Your task to perform on an android device: clear history in the chrome app Image 0: 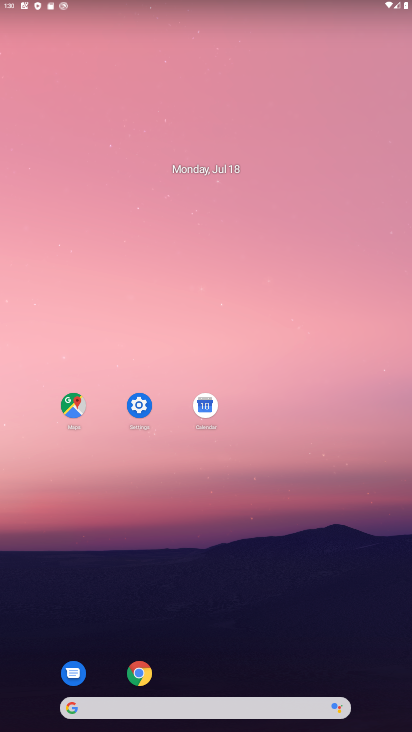
Step 0: click (136, 673)
Your task to perform on an android device: clear history in the chrome app Image 1: 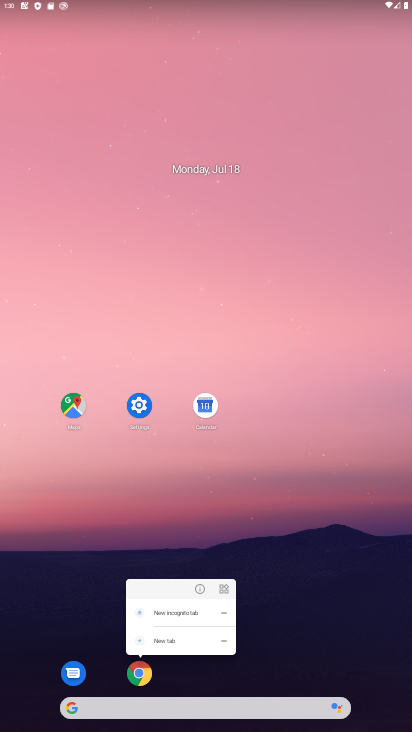
Step 1: click (136, 673)
Your task to perform on an android device: clear history in the chrome app Image 2: 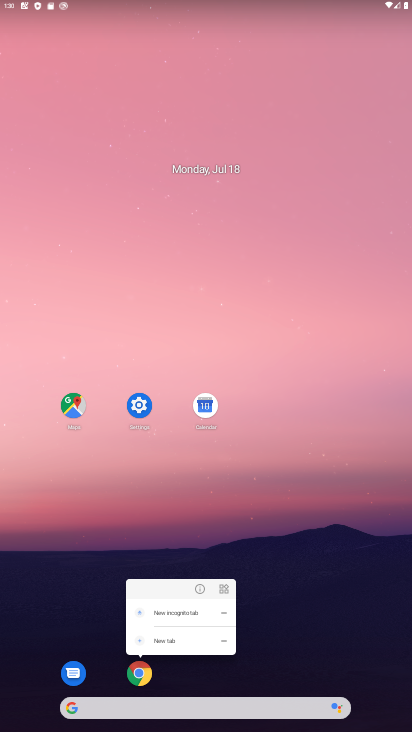
Step 2: click (132, 671)
Your task to perform on an android device: clear history in the chrome app Image 3: 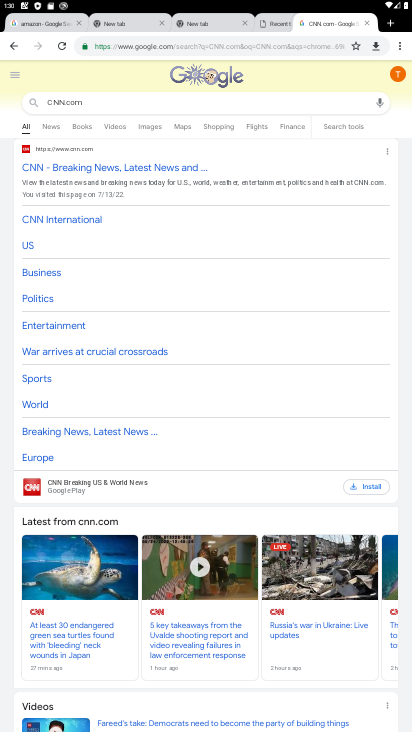
Step 3: click (398, 42)
Your task to perform on an android device: clear history in the chrome app Image 4: 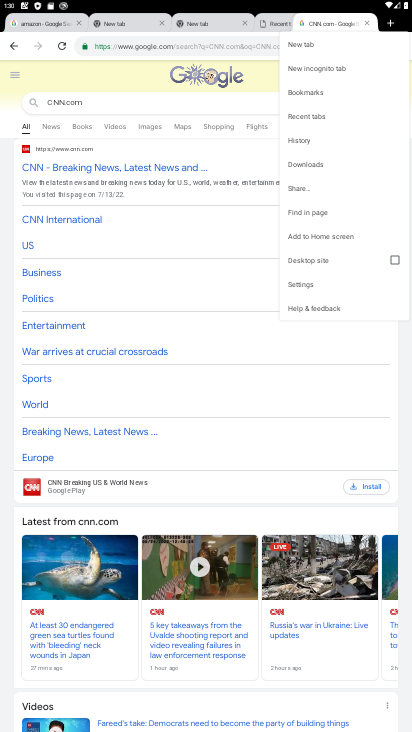
Step 4: click (299, 135)
Your task to perform on an android device: clear history in the chrome app Image 5: 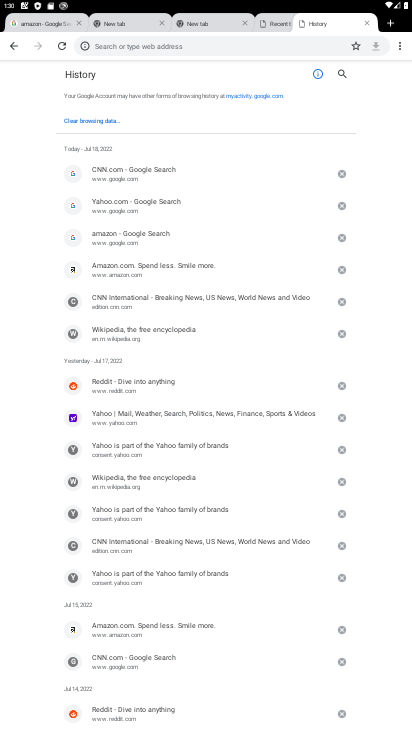
Step 5: click (89, 118)
Your task to perform on an android device: clear history in the chrome app Image 6: 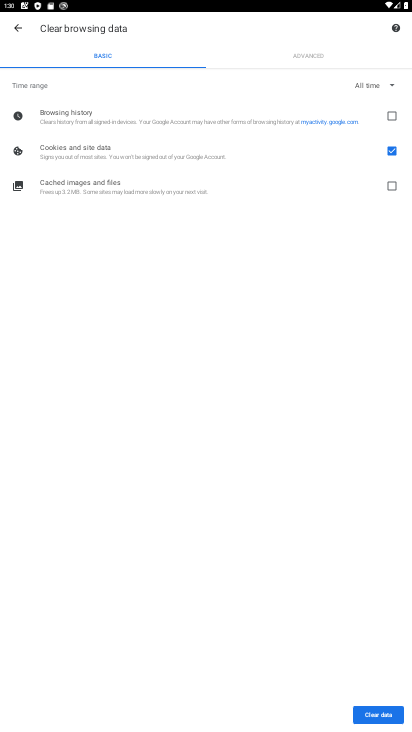
Step 6: click (394, 185)
Your task to perform on an android device: clear history in the chrome app Image 7: 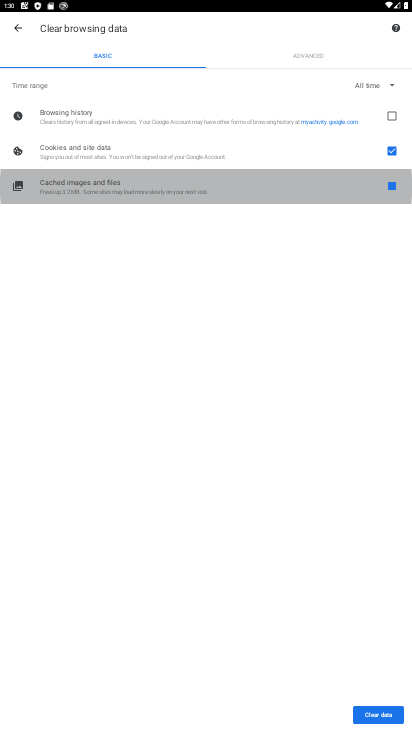
Step 7: click (387, 110)
Your task to perform on an android device: clear history in the chrome app Image 8: 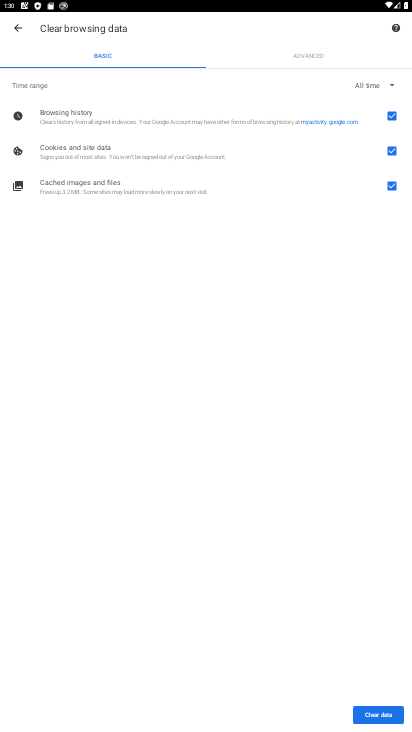
Step 8: click (375, 707)
Your task to perform on an android device: clear history in the chrome app Image 9: 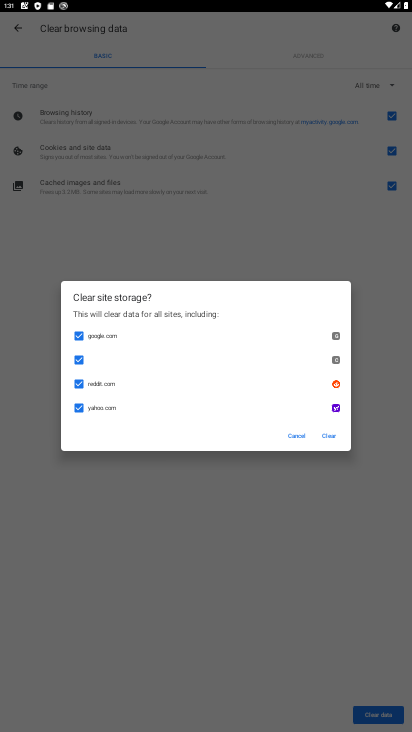
Step 9: click (323, 439)
Your task to perform on an android device: clear history in the chrome app Image 10: 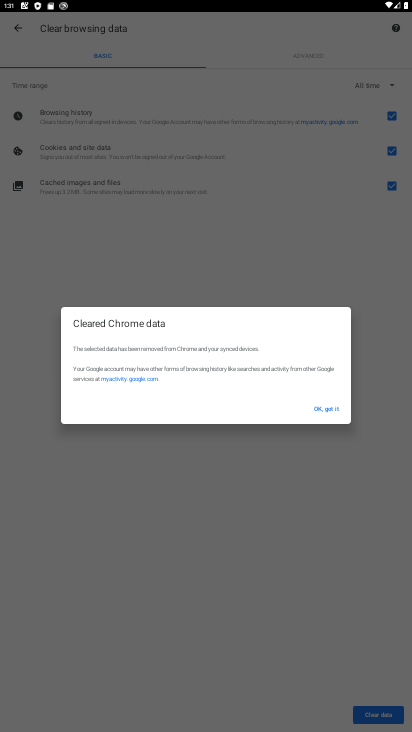
Step 10: click (324, 410)
Your task to perform on an android device: clear history in the chrome app Image 11: 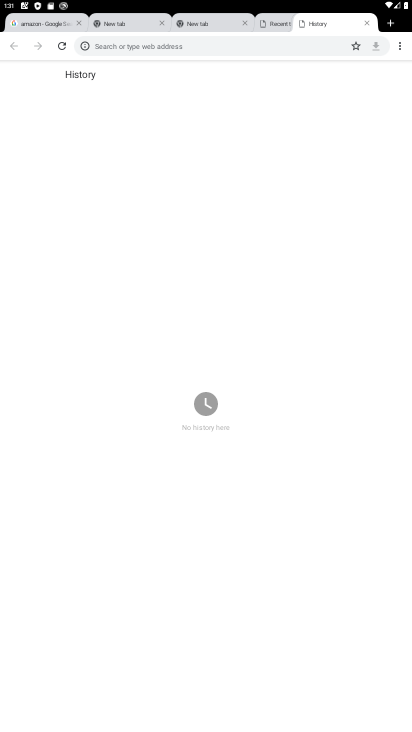
Step 11: task complete